Your task to perform on an android device: remove spam from my inbox in the gmail app Image 0: 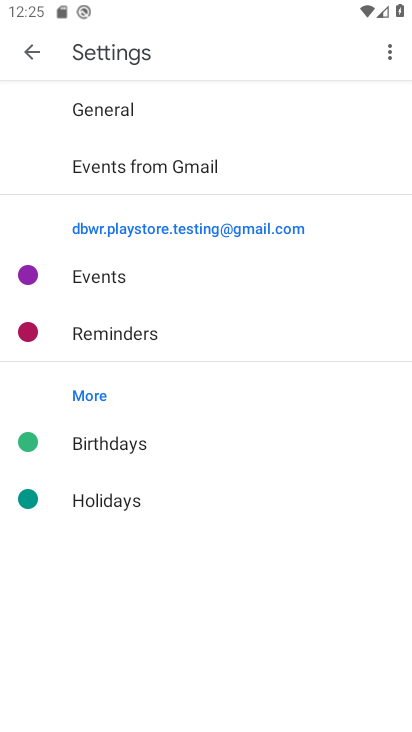
Step 0: press home button
Your task to perform on an android device: remove spam from my inbox in the gmail app Image 1: 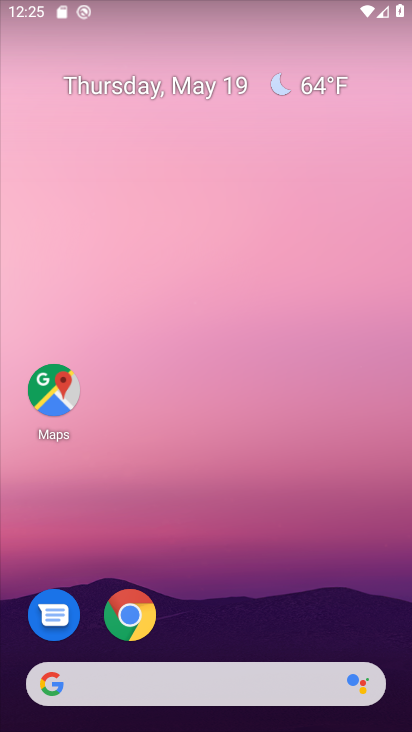
Step 1: drag from (240, 697) to (275, 223)
Your task to perform on an android device: remove spam from my inbox in the gmail app Image 2: 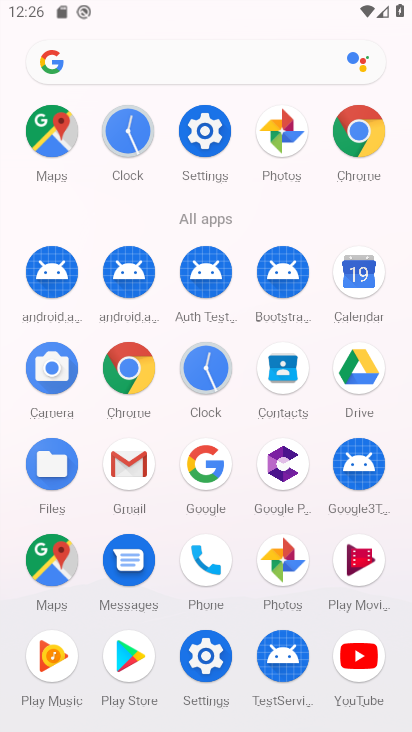
Step 2: click (129, 465)
Your task to perform on an android device: remove spam from my inbox in the gmail app Image 3: 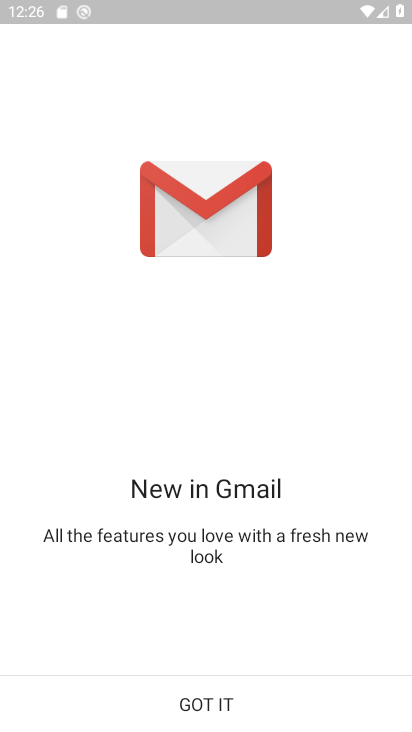
Step 3: click (201, 705)
Your task to perform on an android device: remove spam from my inbox in the gmail app Image 4: 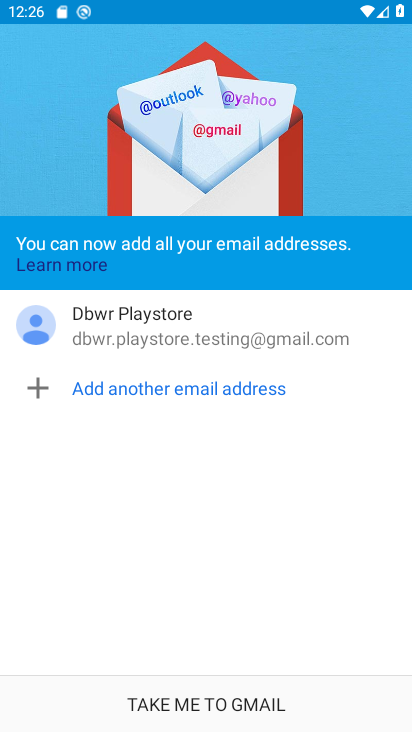
Step 4: click (181, 708)
Your task to perform on an android device: remove spam from my inbox in the gmail app Image 5: 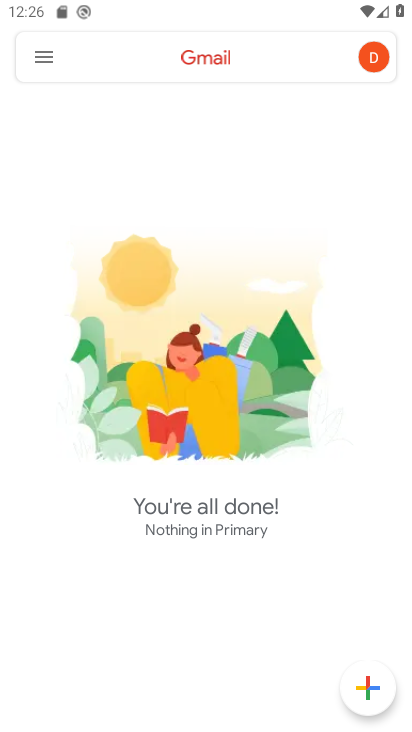
Step 5: click (54, 69)
Your task to perform on an android device: remove spam from my inbox in the gmail app Image 6: 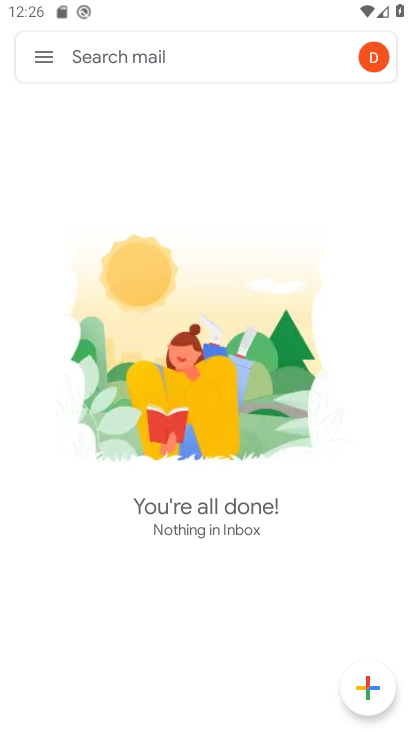
Step 6: click (57, 62)
Your task to perform on an android device: remove spam from my inbox in the gmail app Image 7: 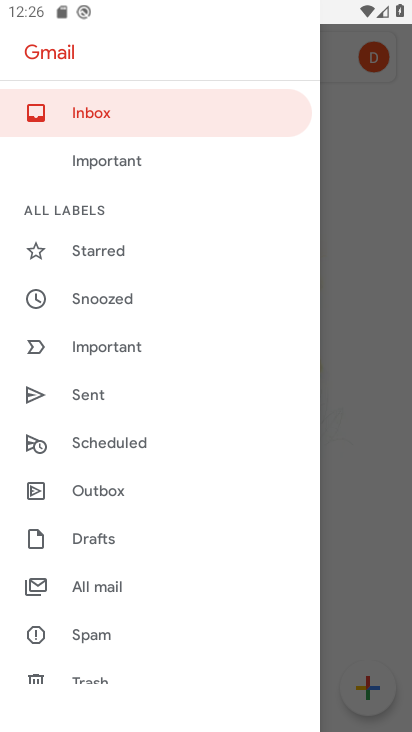
Step 7: click (87, 632)
Your task to perform on an android device: remove spam from my inbox in the gmail app Image 8: 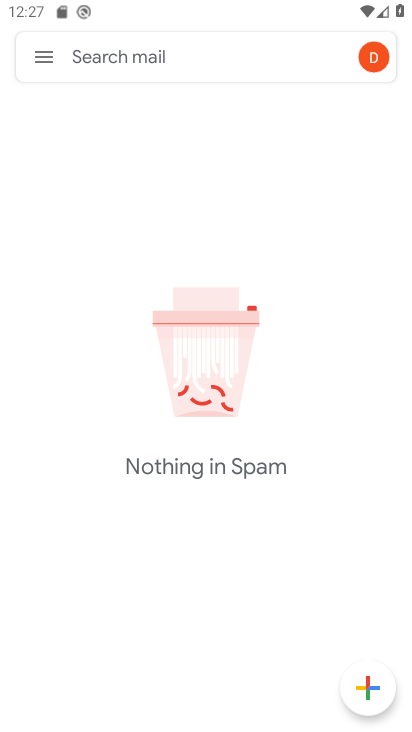
Step 8: task complete